Your task to perform on an android device: Go to Yahoo.com Image 0: 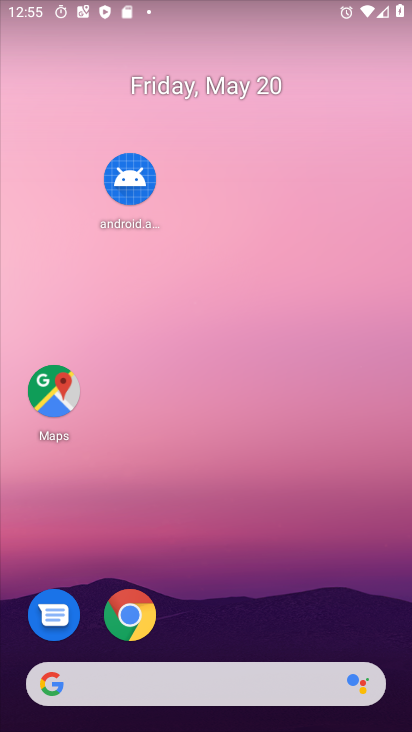
Step 0: drag from (305, 550) to (300, 109)
Your task to perform on an android device: Go to Yahoo.com Image 1: 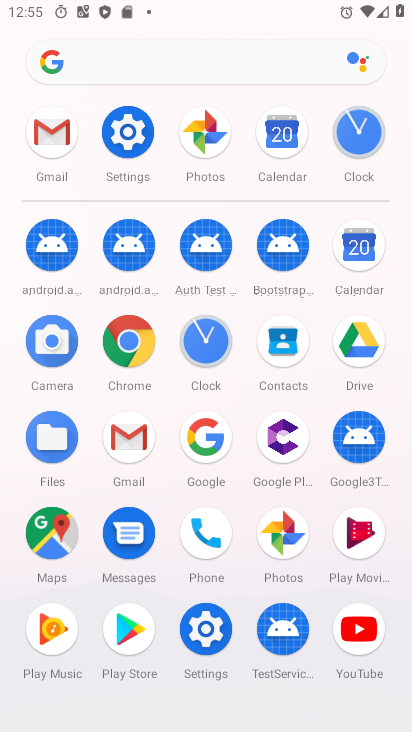
Step 1: click (137, 331)
Your task to perform on an android device: Go to Yahoo.com Image 2: 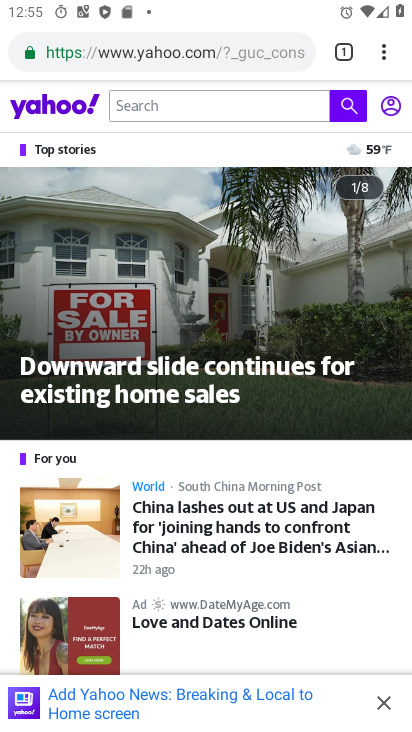
Step 2: task complete